Your task to perform on an android device: Open Chrome and go to settings Image 0: 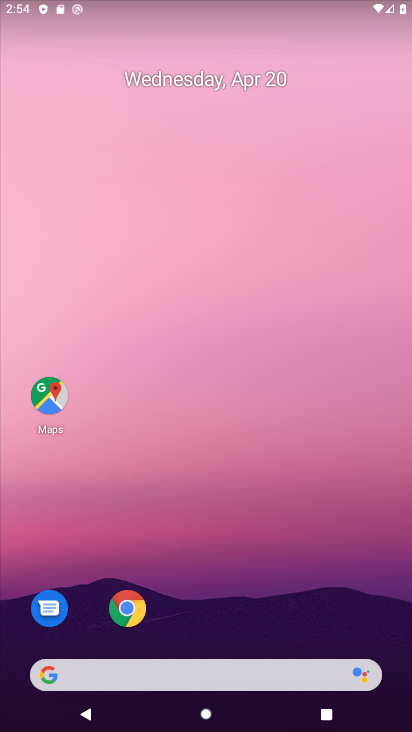
Step 0: click (120, 614)
Your task to perform on an android device: Open Chrome and go to settings Image 1: 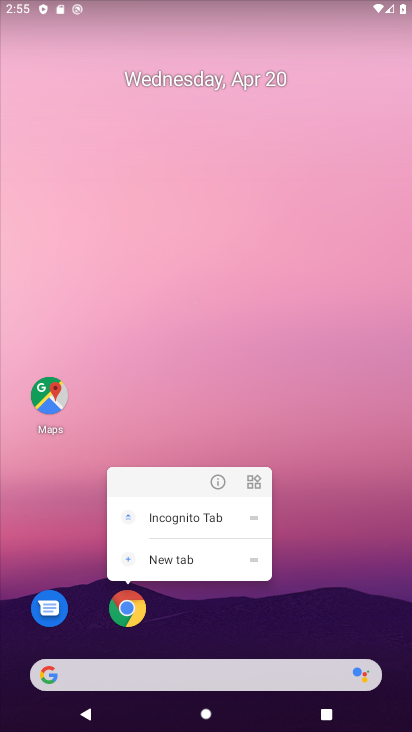
Step 1: click (127, 610)
Your task to perform on an android device: Open Chrome and go to settings Image 2: 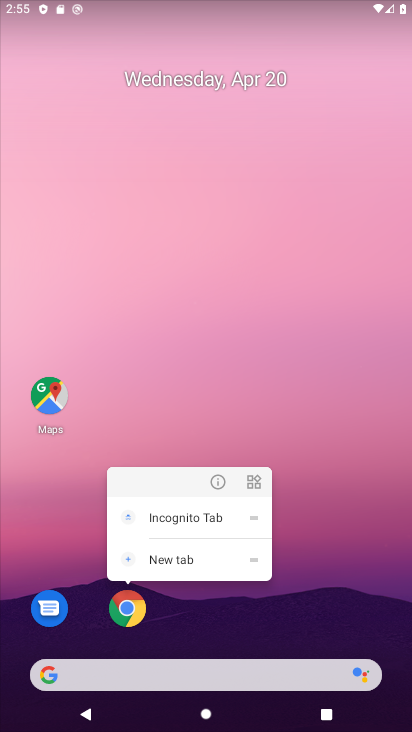
Step 2: click (127, 610)
Your task to perform on an android device: Open Chrome and go to settings Image 3: 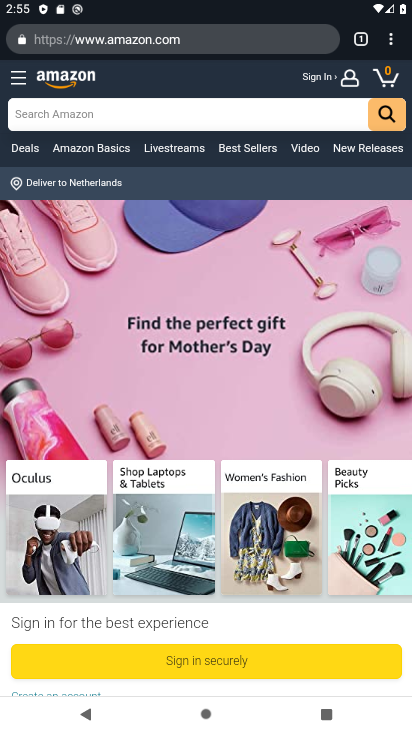
Step 3: task complete